Your task to perform on an android device: turn off sleep mode Image 0: 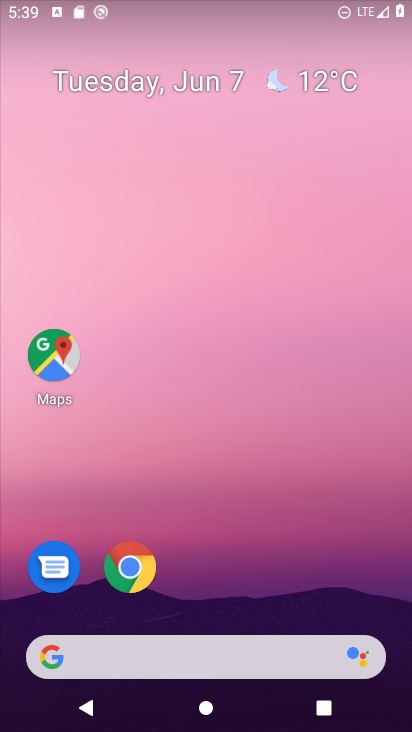
Step 0: drag from (269, 637) to (349, 107)
Your task to perform on an android device: turn off sleep mode Image 1: 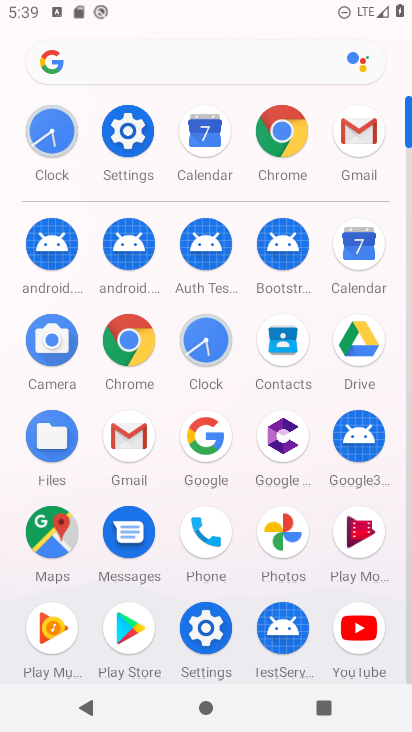
Step 1: click (142, 138)
Your task to perform on an android device: turn off sleep mode Image 2: 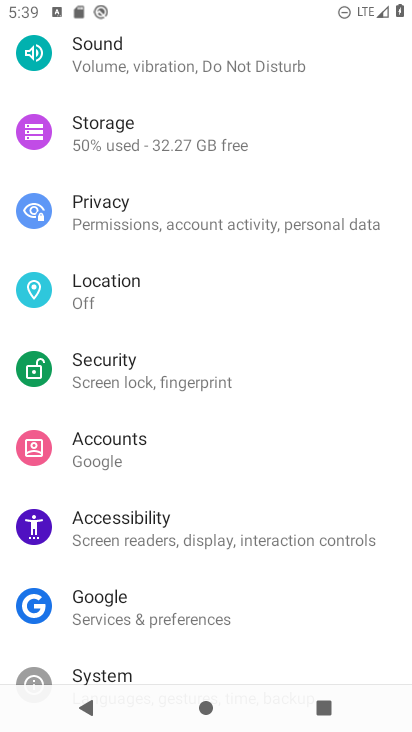
Step 2: drag from (241, 127) to (268, 522)
Your task to perform on an android device: turn off sleep mode Image 3: 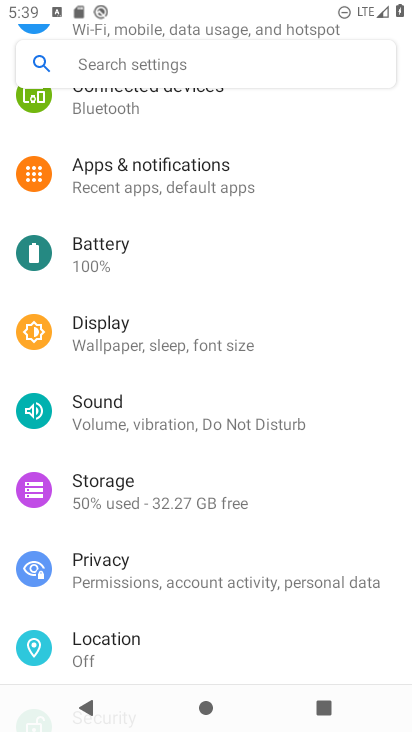
Step 3: click (253, 340)
Your task to perform on an android device: turn off sleep mode Image 4: 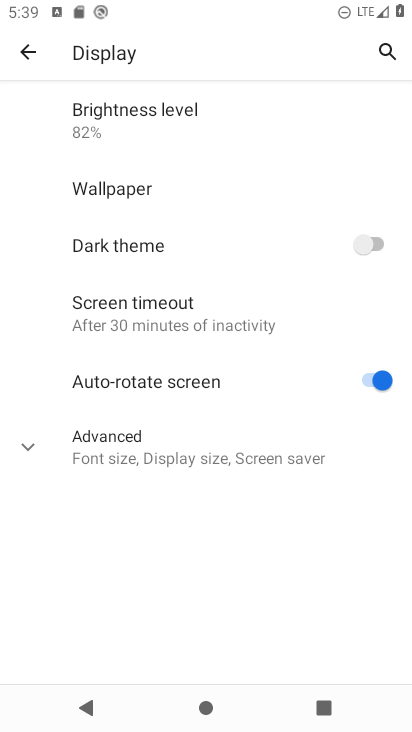
Step 4: task complete